Your task to perform on an android device: Show the shopping cart on target.com. Image 0: 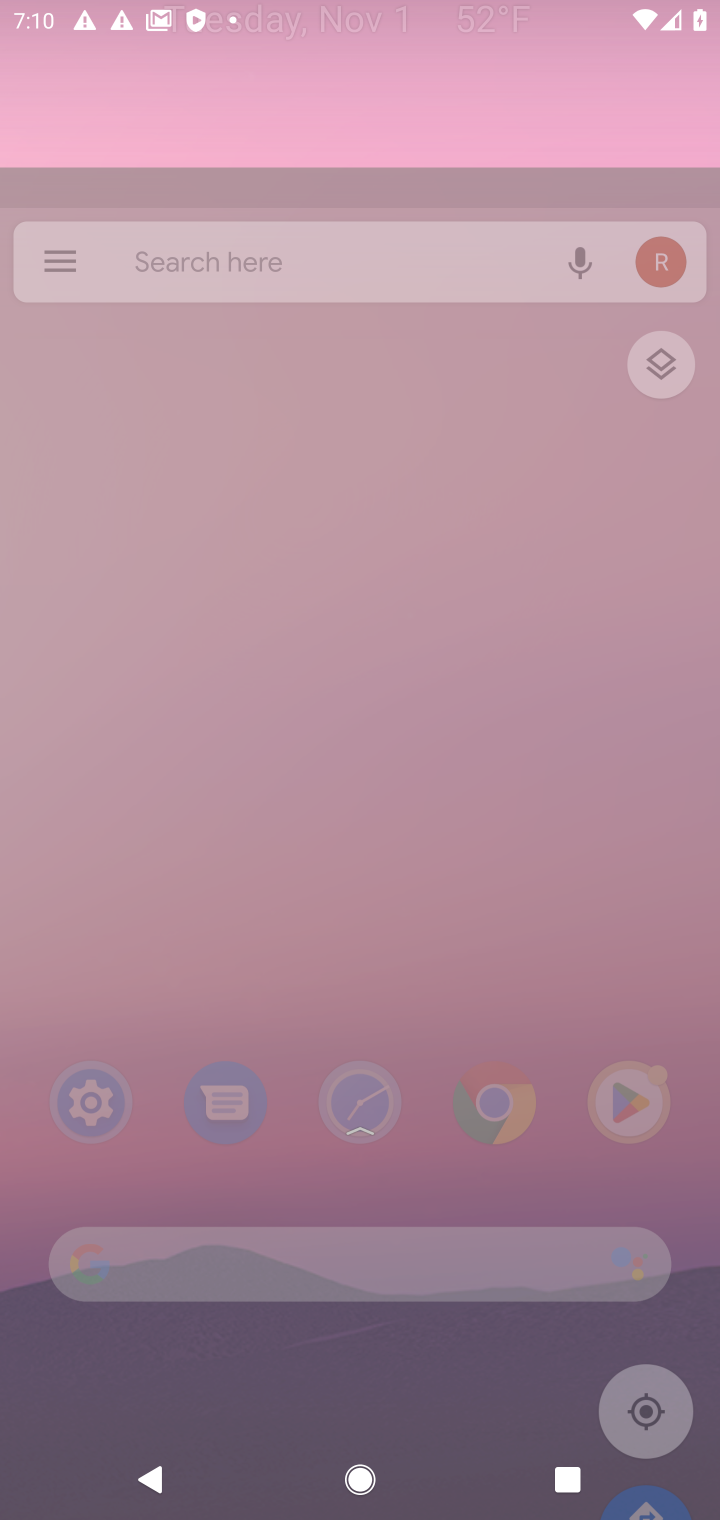
Step 0: click (346, 1349)
Your task to perform on an android device: Show the shopping cart on target.com. Image 1: 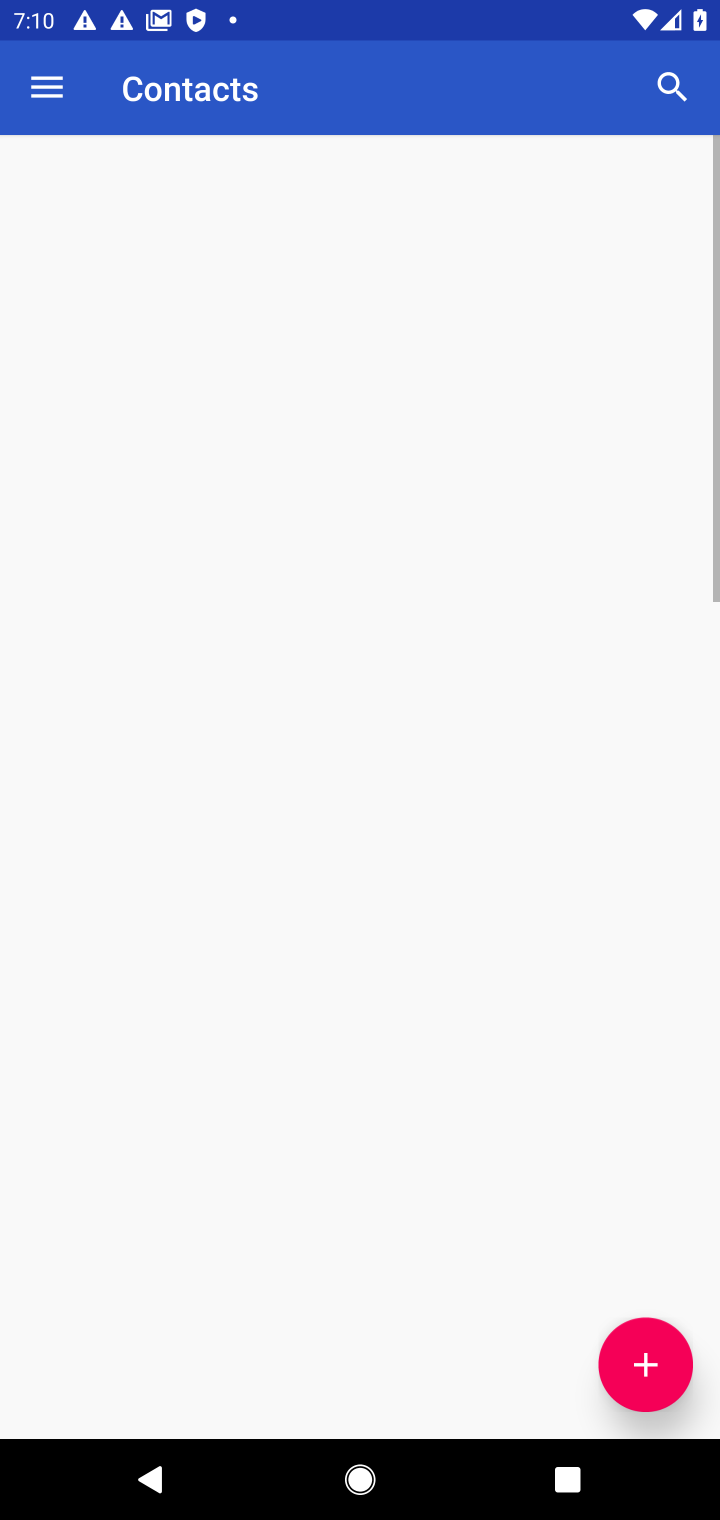
Step 1: click (346, 1349)
Your task to perform on an android device: Show the shopping cart on target.com. Image 2: 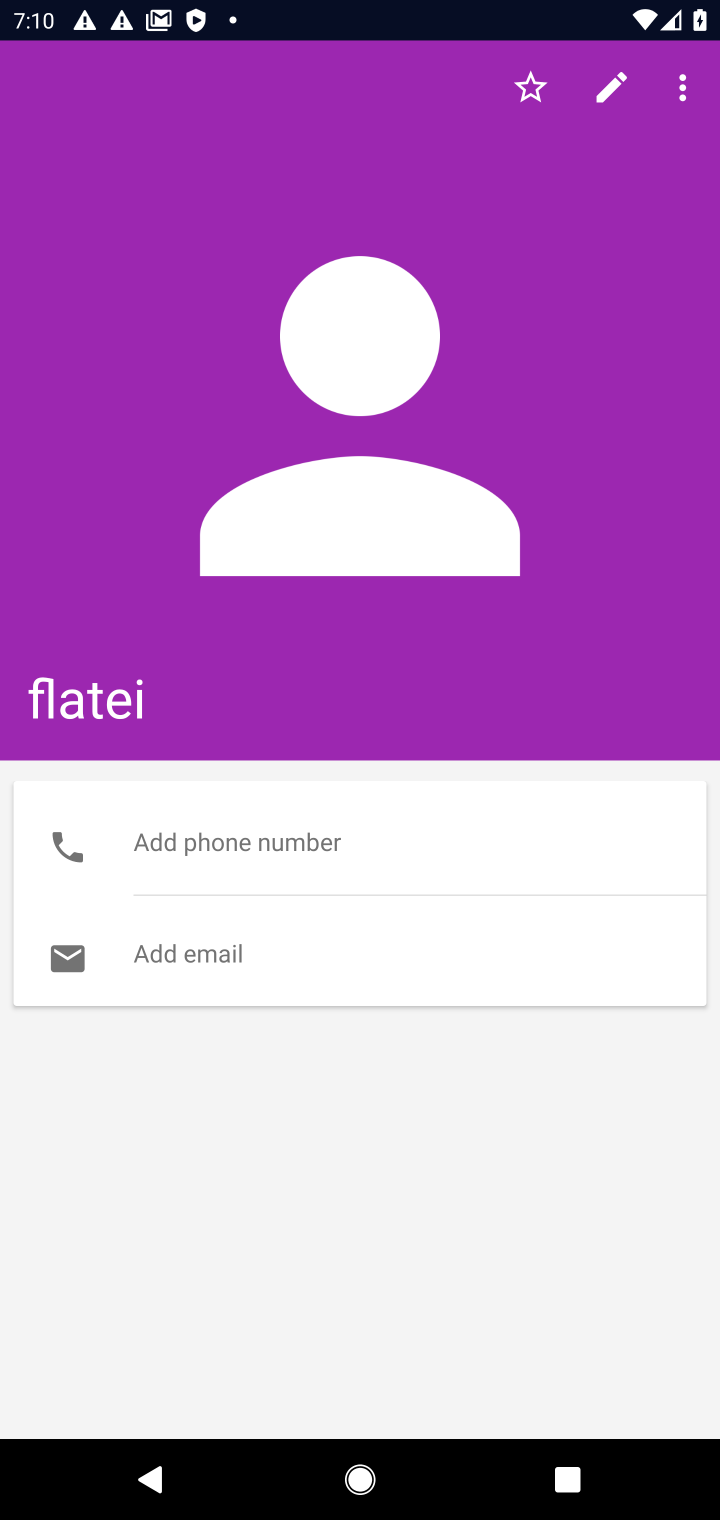
Step 2: press home button
Your task to perform on an android device: Show the shopping cart on target.com. Image 3: 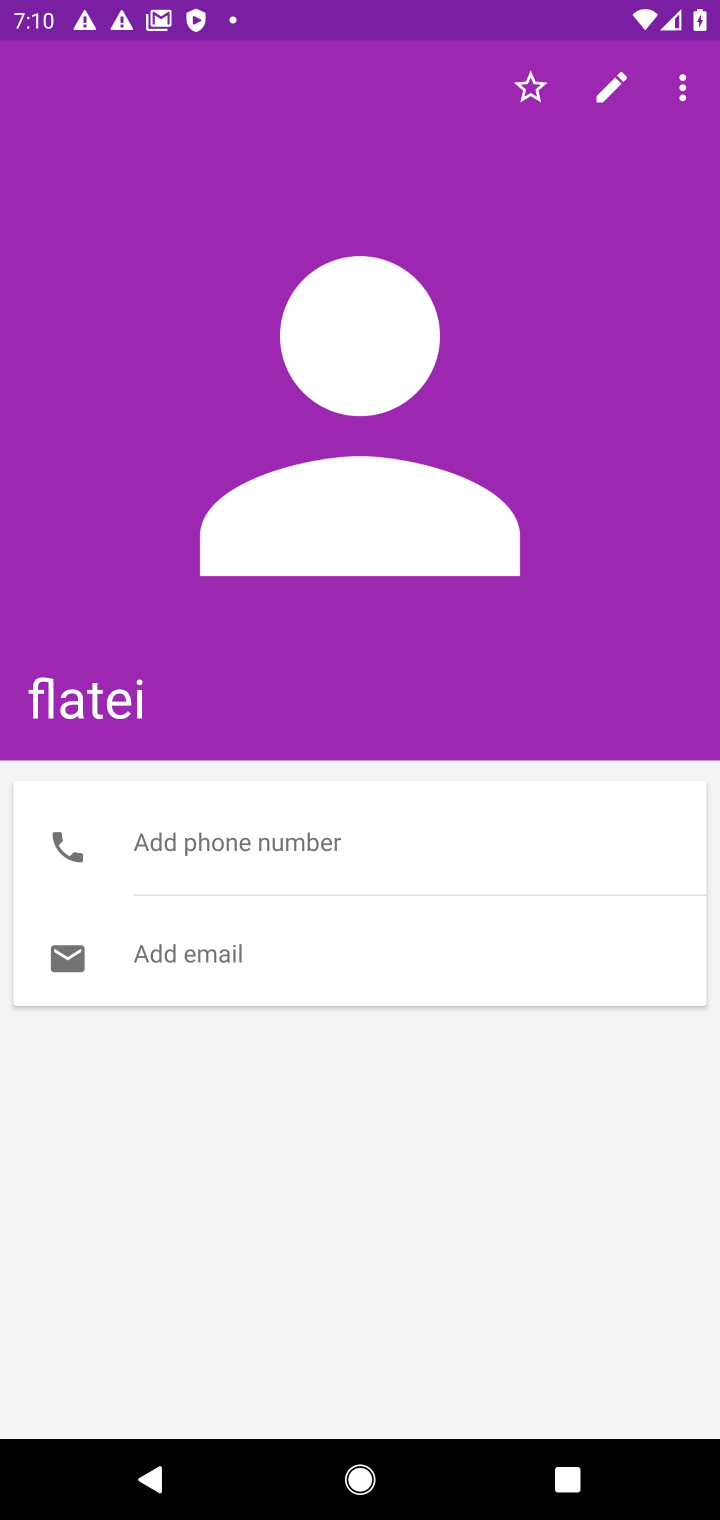
Step 3: press home button
Your task to perform on an android device: Show the shopping cart on target.com. Image 4: 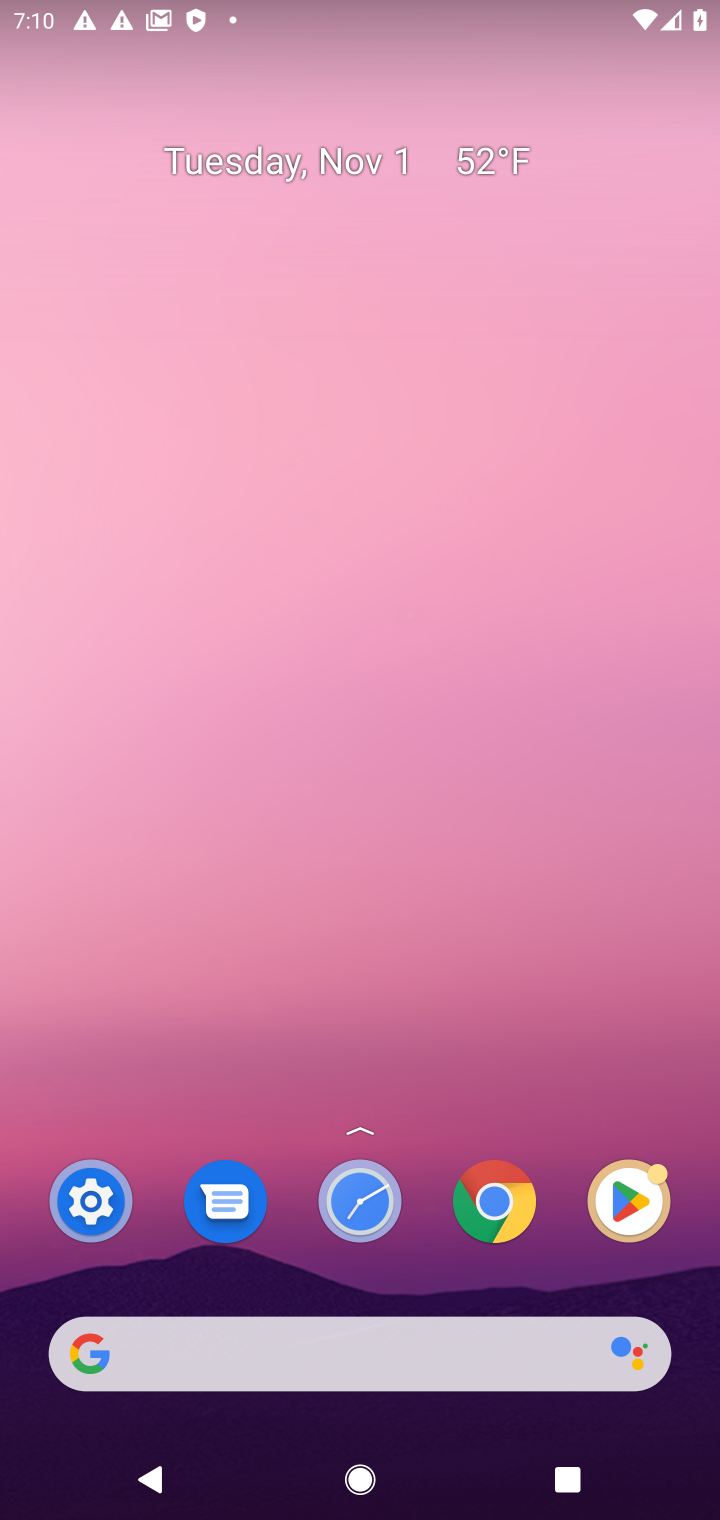
Step 4: press home button
Your task to perform on an android device: Show the shopping cart on target.com. Image 5: 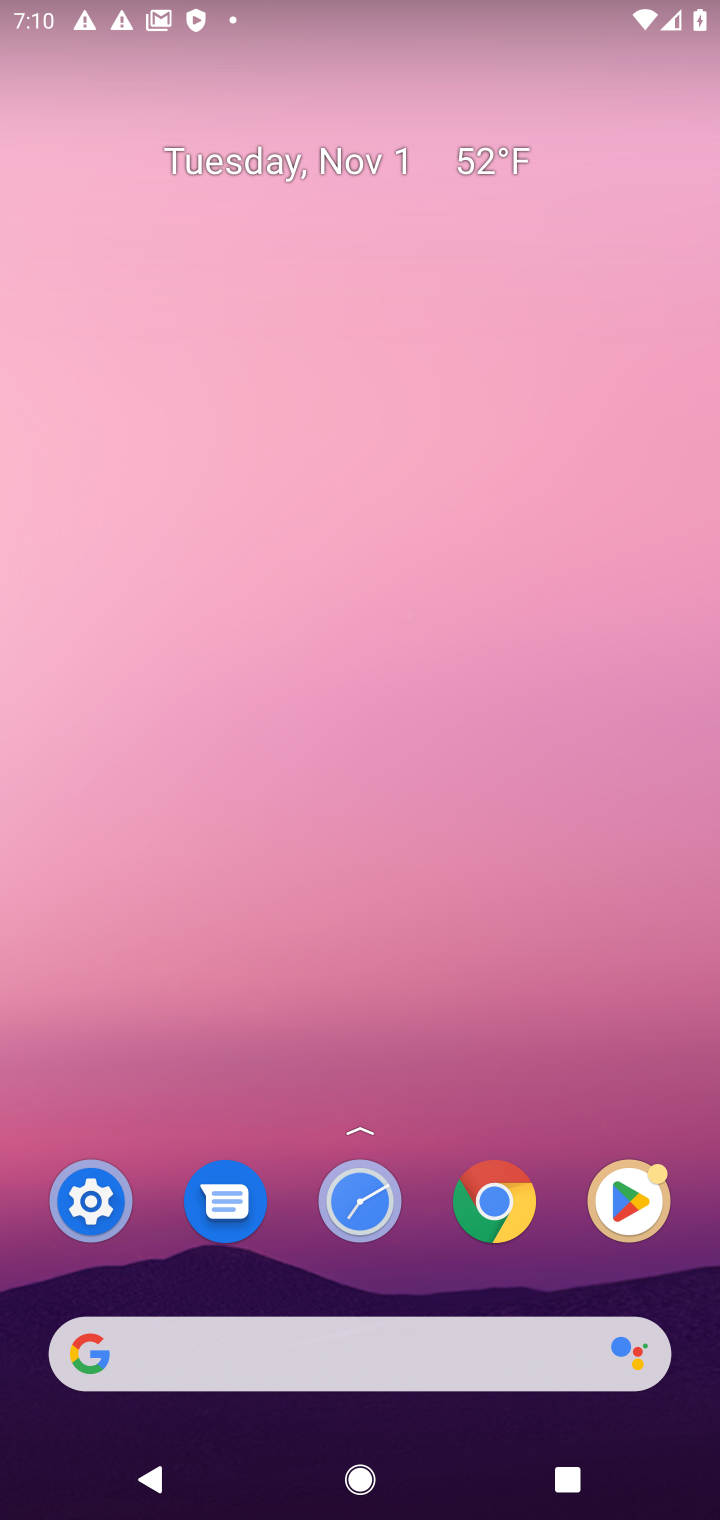
Step 5: click (309, 1342)
Your task to perform on an android device: Show the shopping cart on target.com. Image 6: 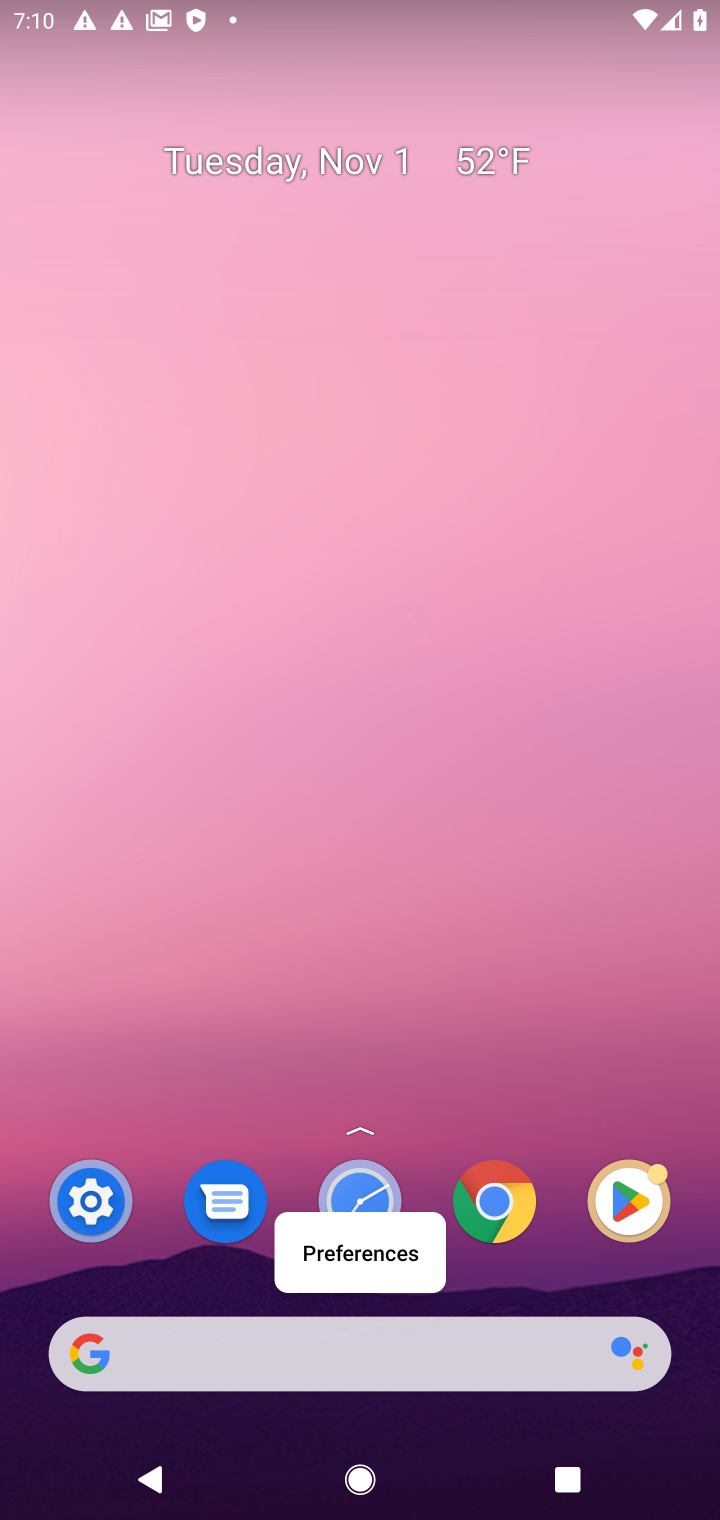
Step 6: click (309, 1354)
Your task to perform on an android device: Show the shopping cart on target.com. Image 7: 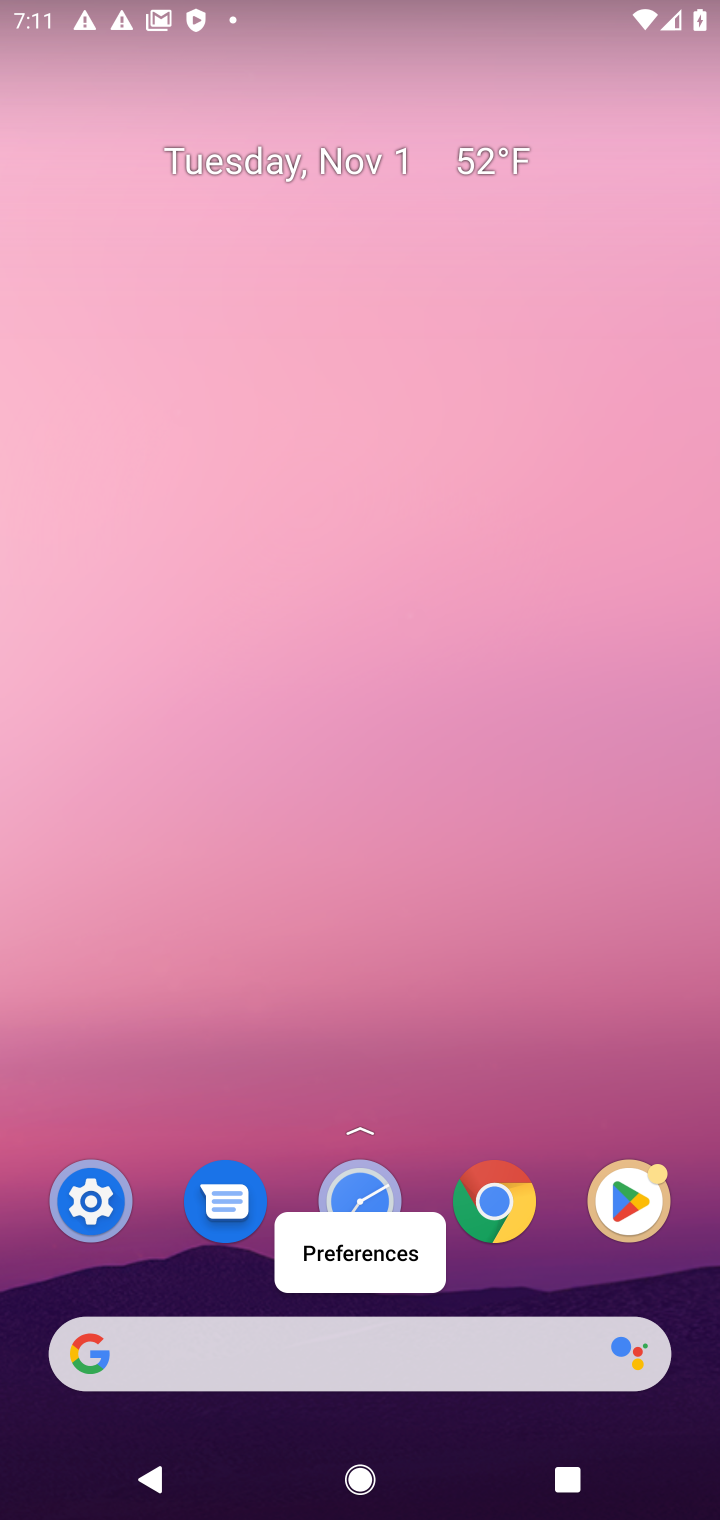
Step 7: click (419, 1340)
Your task to perform on an android device: Show the shopping cart on target.com. Image 8: 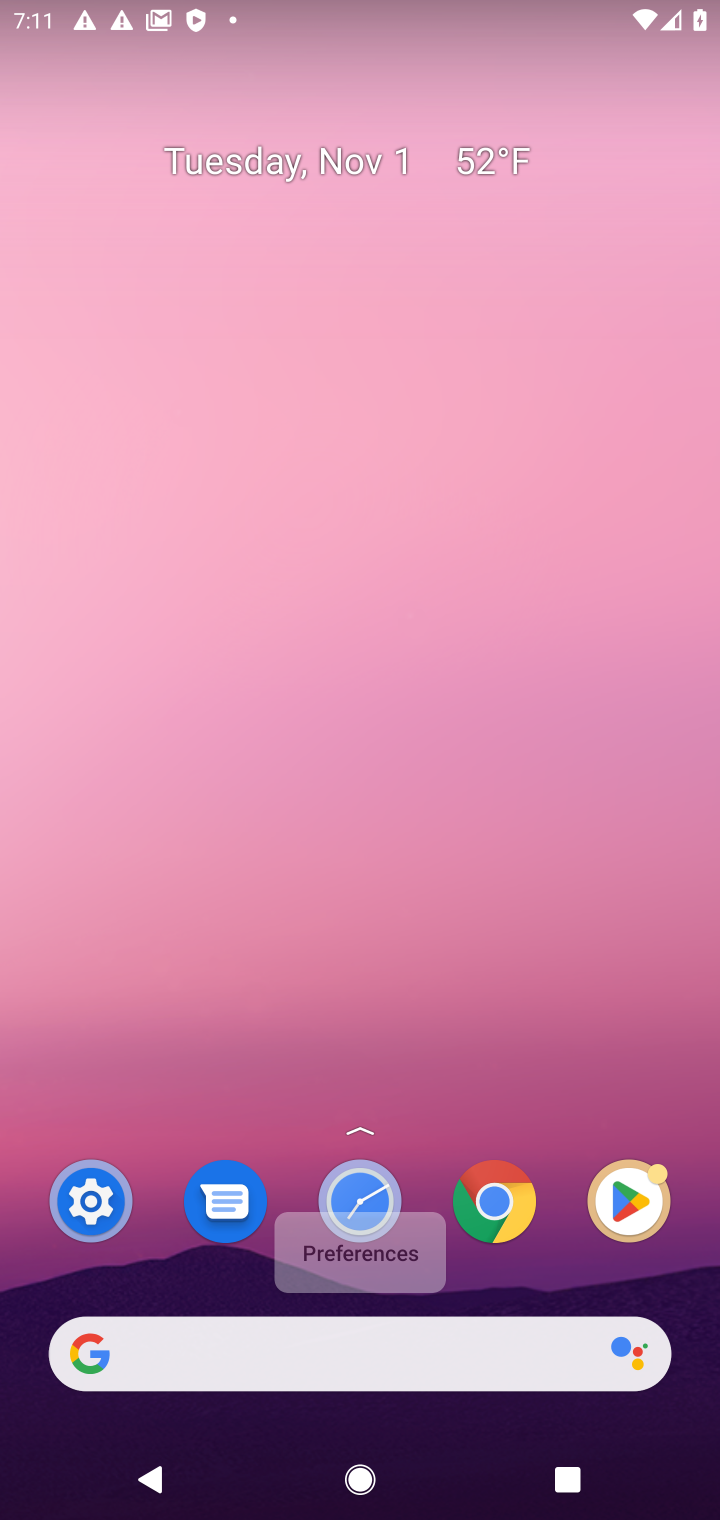
Step 8: click (419, 1340)
Your task to perform on an android device: Show the shopping cart on target.com. Image 9: 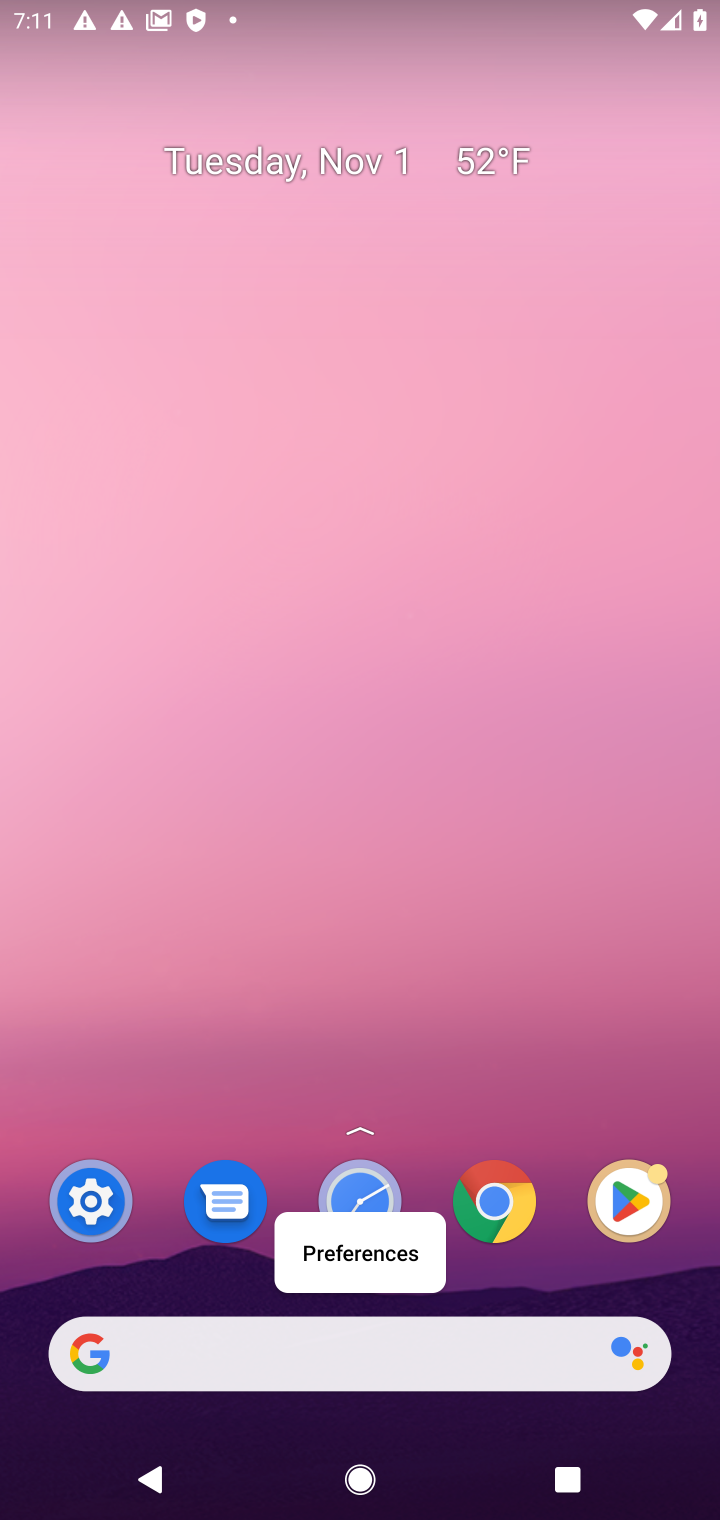
Step 9: click (419, 1340)
Your task to perform on an android device: Show the shopping cart on target.com. Image 10: 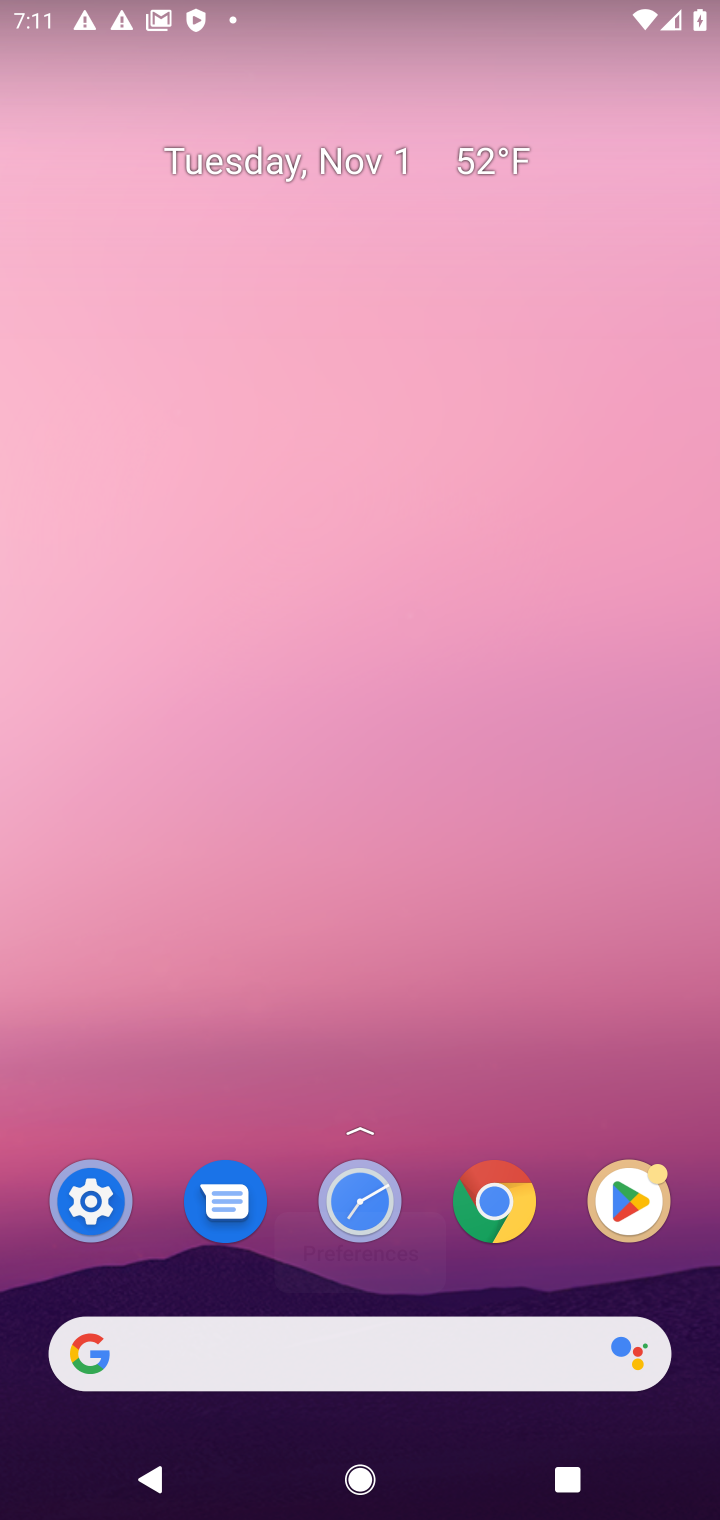
Step 10: click (419, 1340)
Your task to perform on an android device: Show the shopping cart on target.com. Image 11: 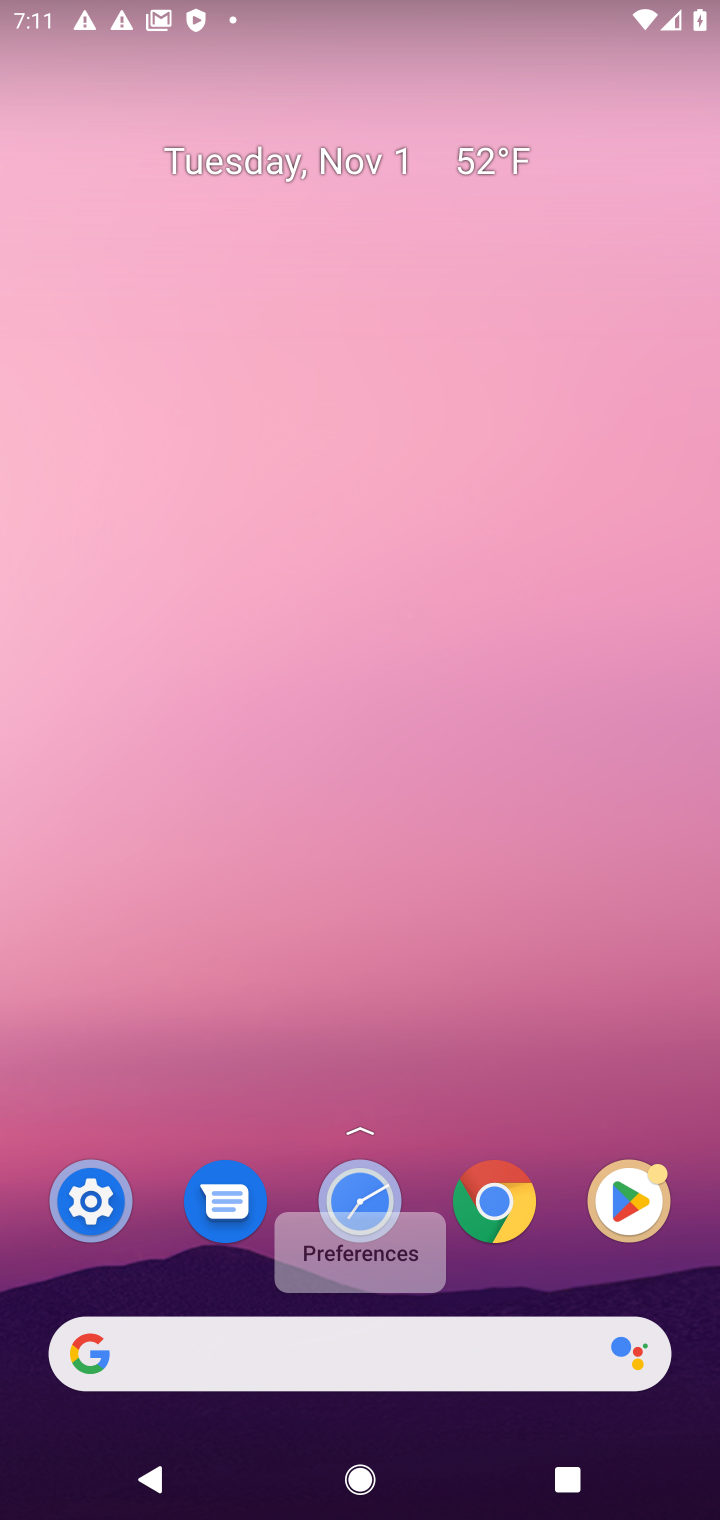
Step 11: click (416, 1340)
Your task to perform on an android device: Show the shopping cart on target.com. Image 12: 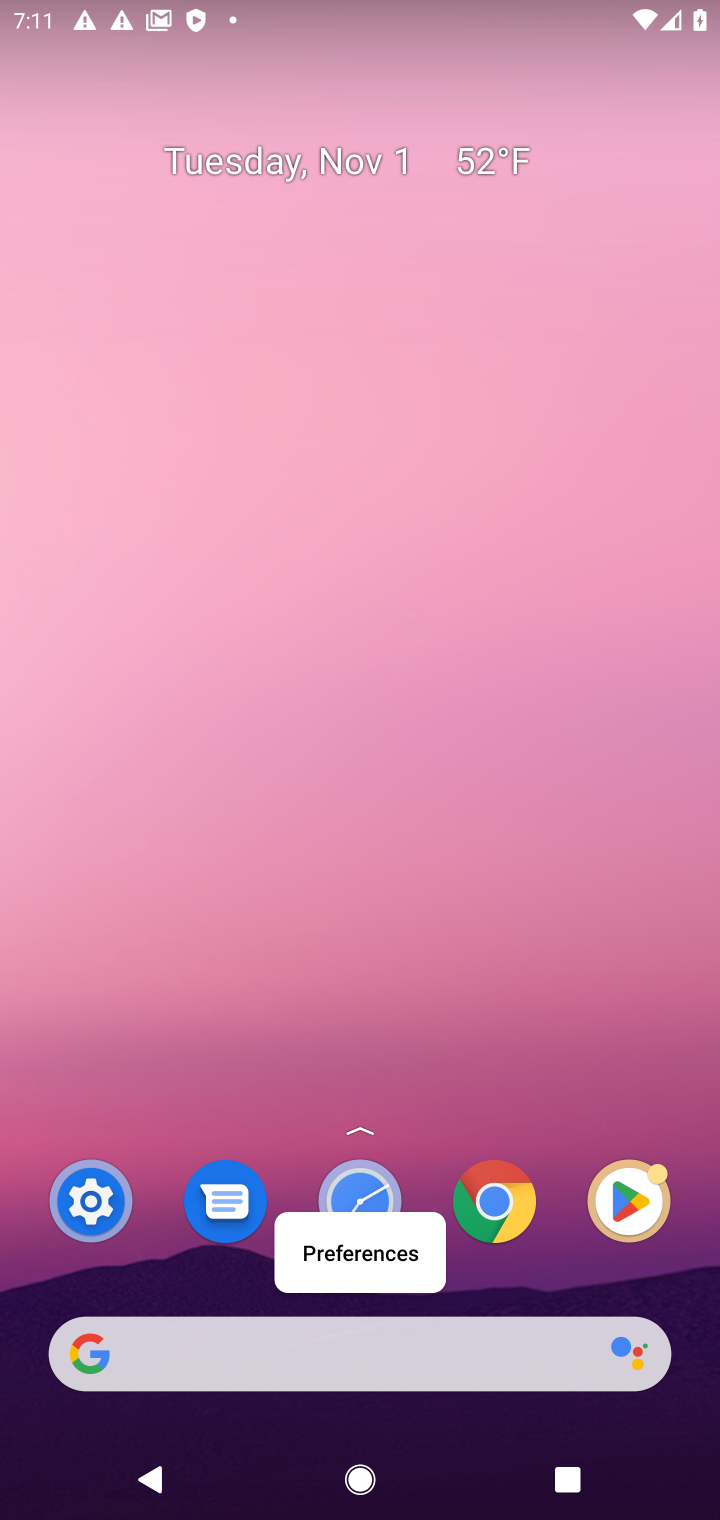
Step 12: click (340, 1332)
Your task to perform on an android device: Show the shopping cart on target.com. Image 13: 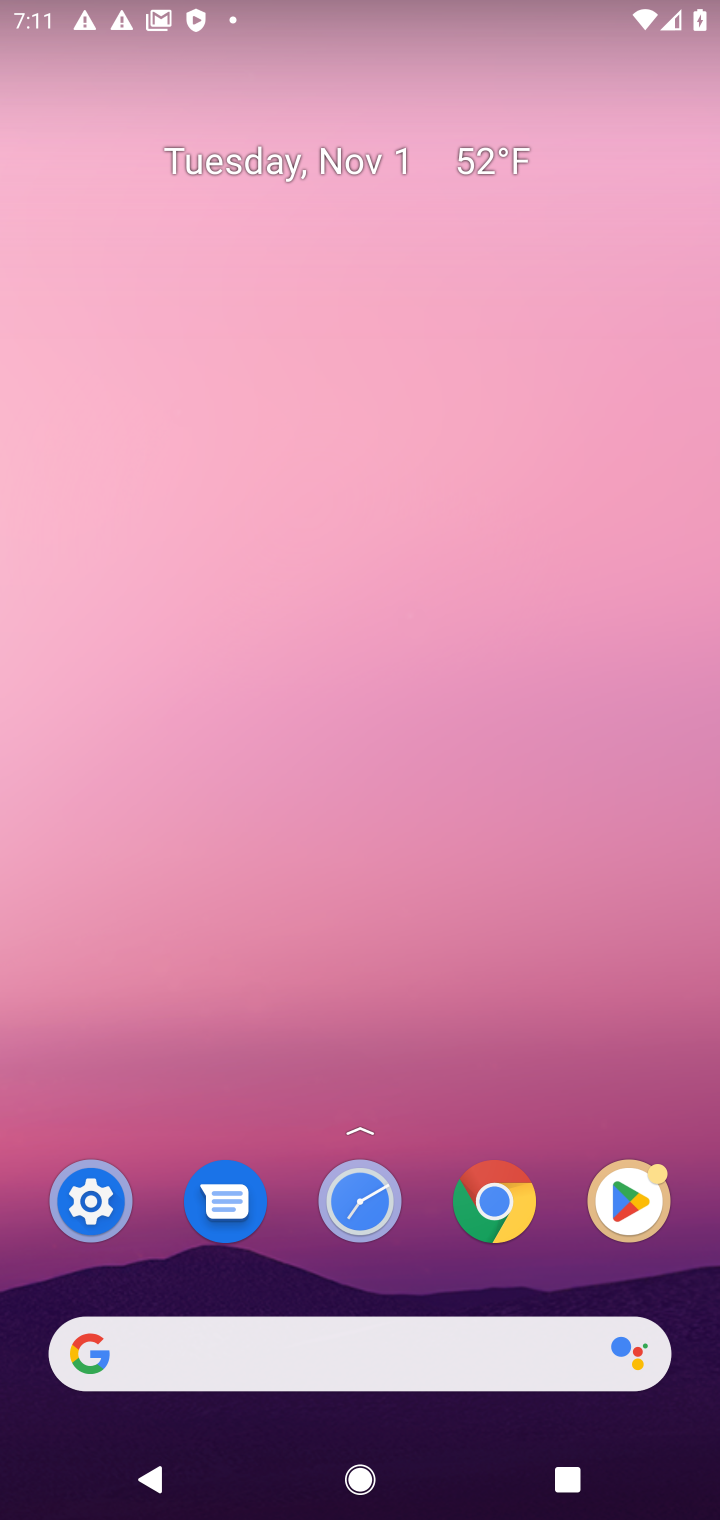
Step 13: click (340, 1332)
Your task to perform on an android device: Show the shopping cart on target.com. Image 14: 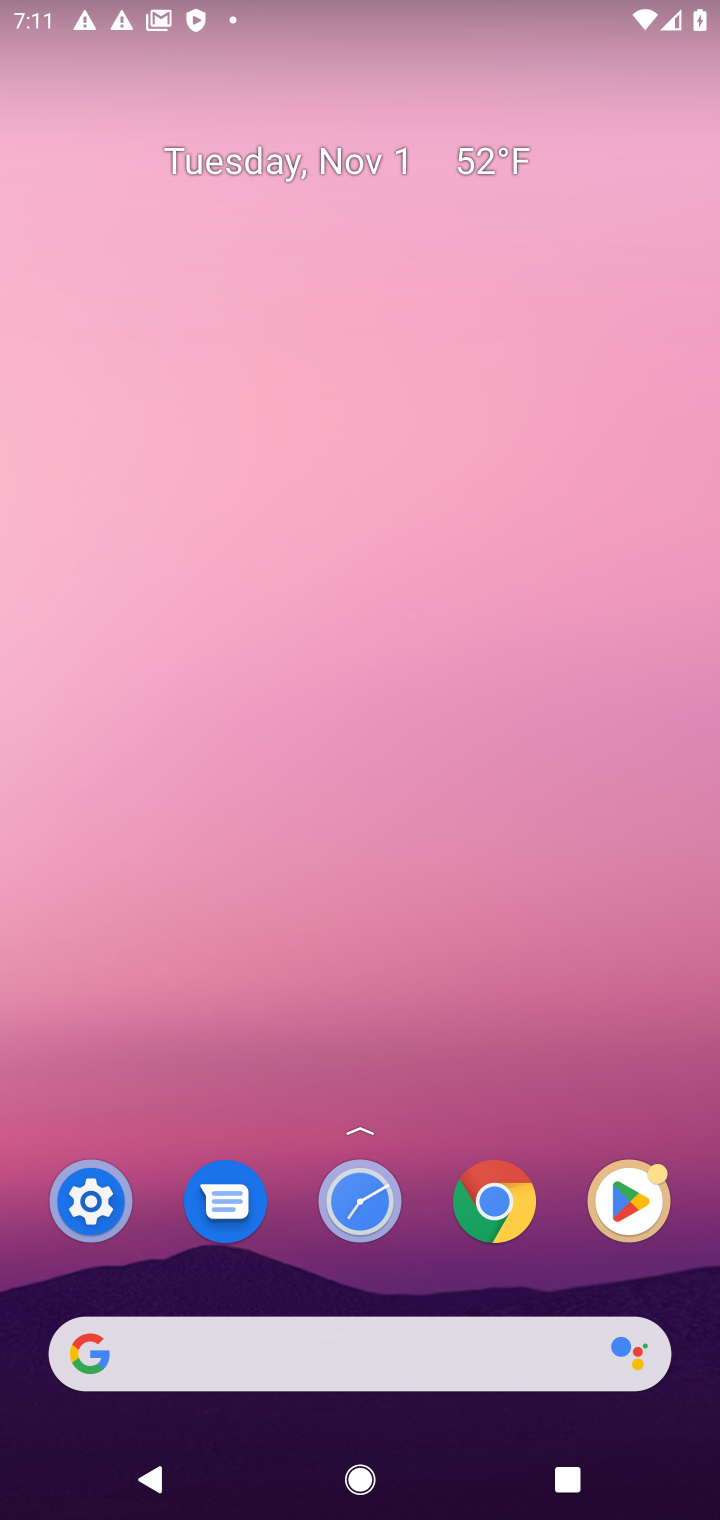
Step 14: click (243, 1347)
Your task to perform on an android device: Show the shopping cart on target.com. Image 15: 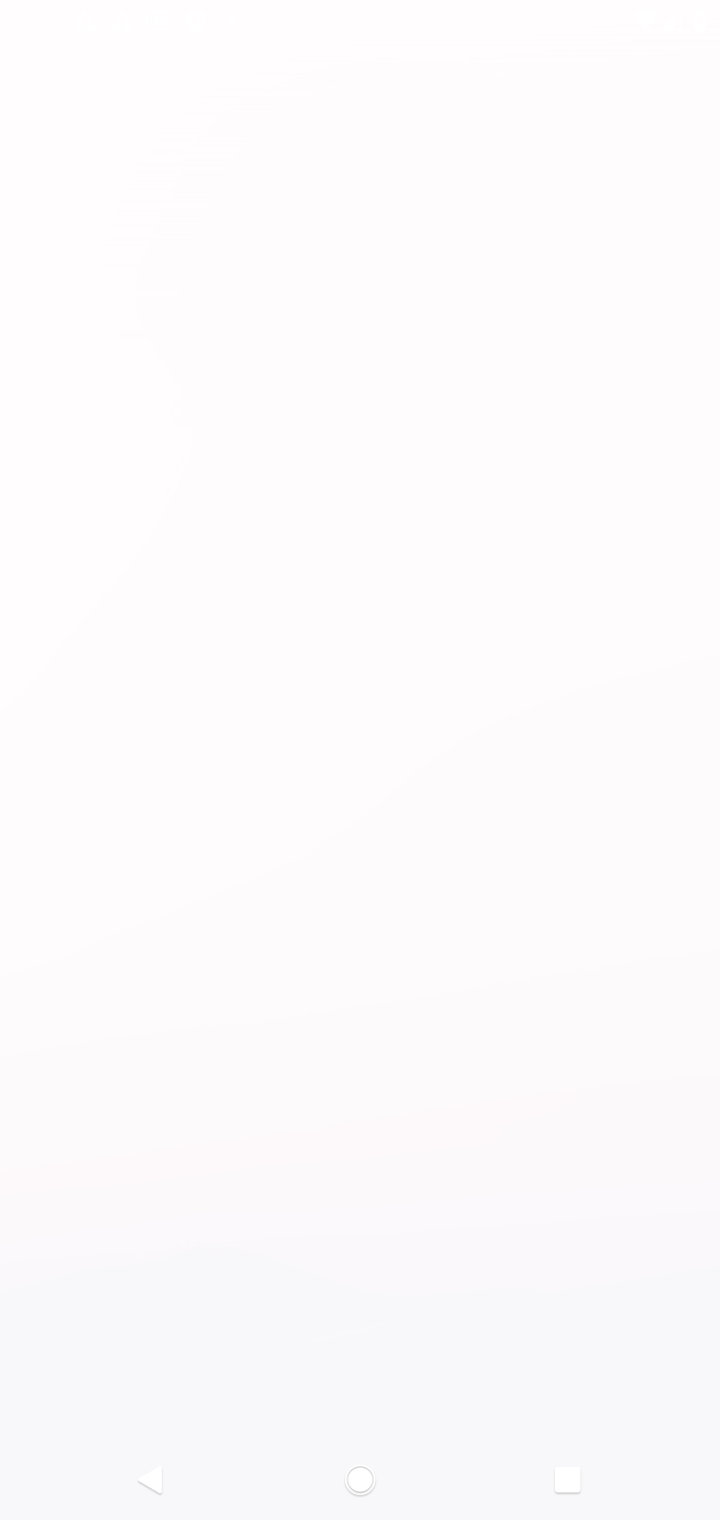
Step 15: click (223, 1350)
Your task to perform on an android device: Show the shopping cart on target.com. Image 16: 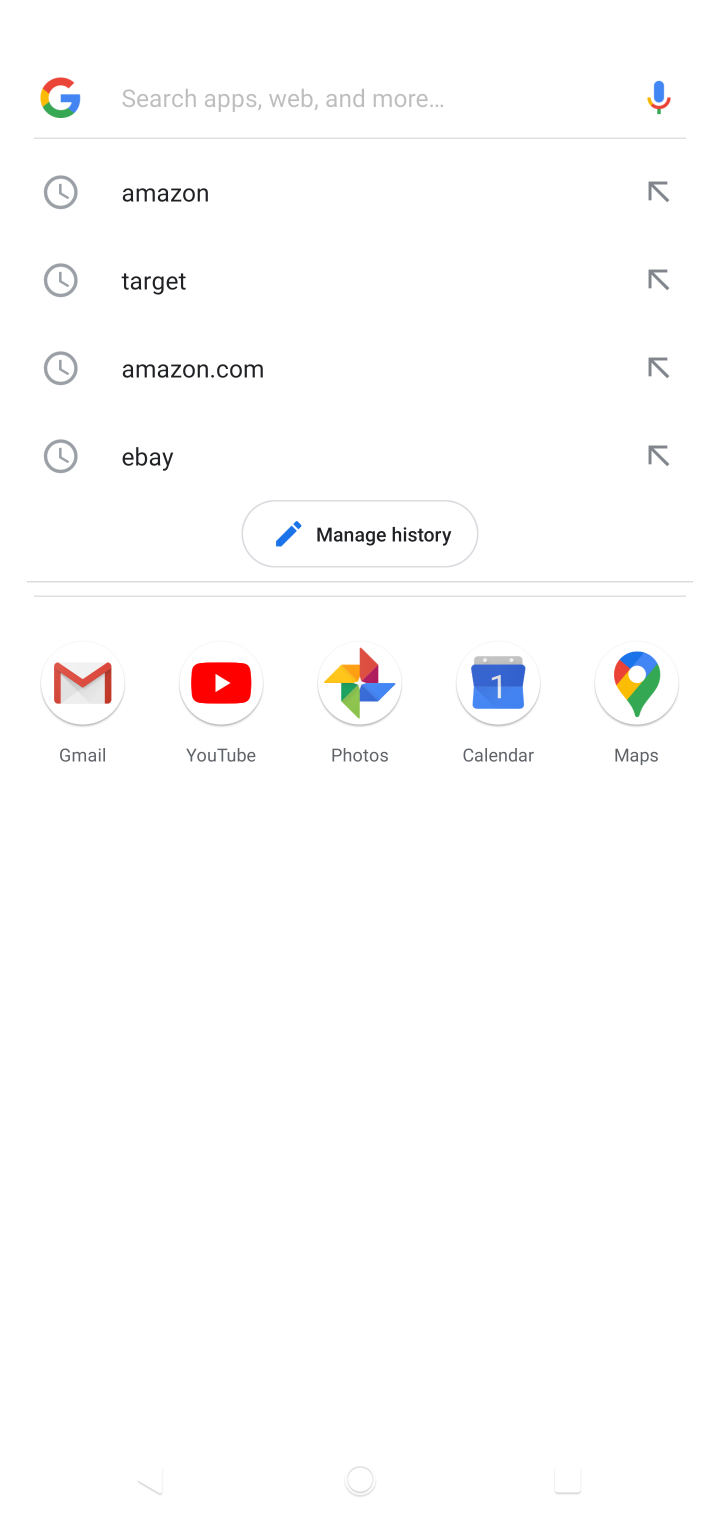
Step 16: click (225, 1356)
Your task to perform on an android device: Show the shopping cart on target.com. Image 17: 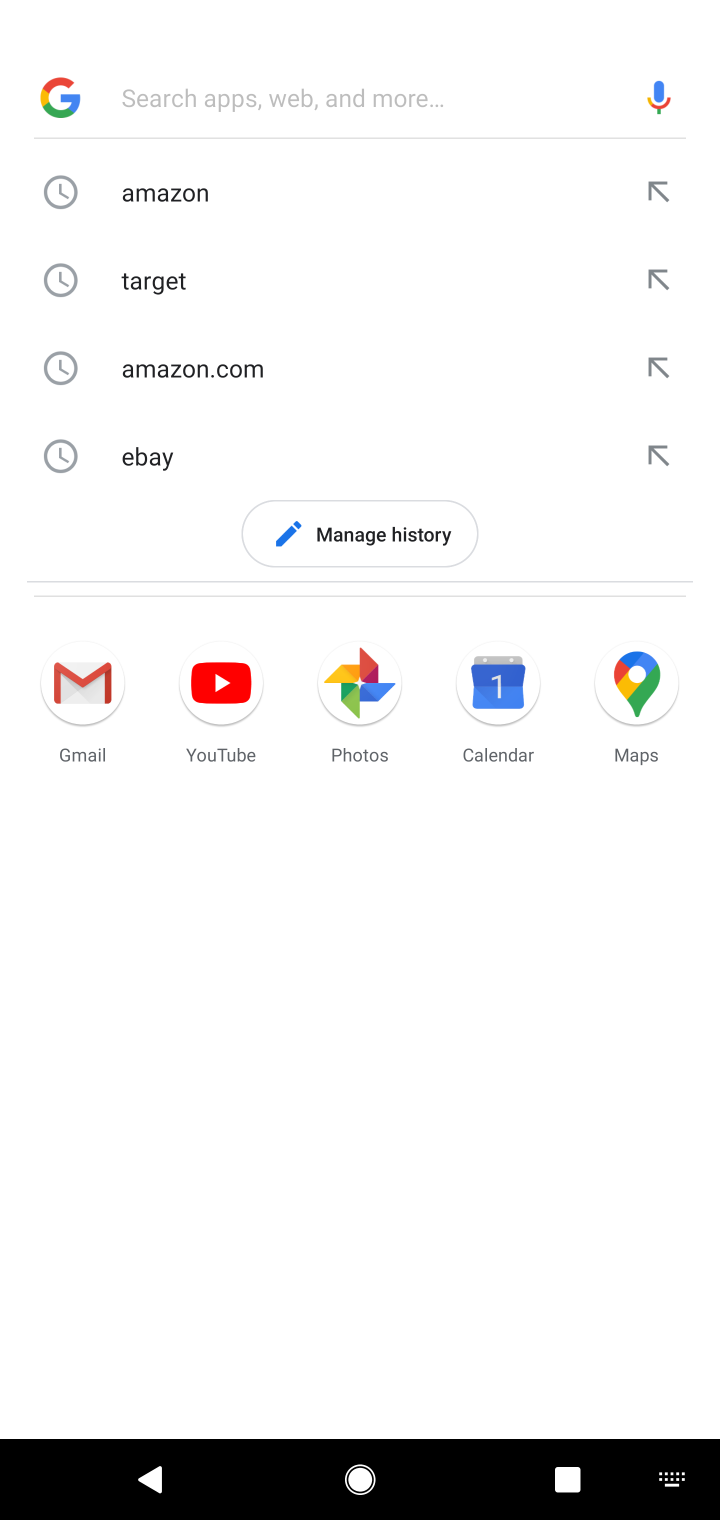
Step 17: type ""
Your task to perform on an android device: Show the shopping cart on target.com. Image 18: 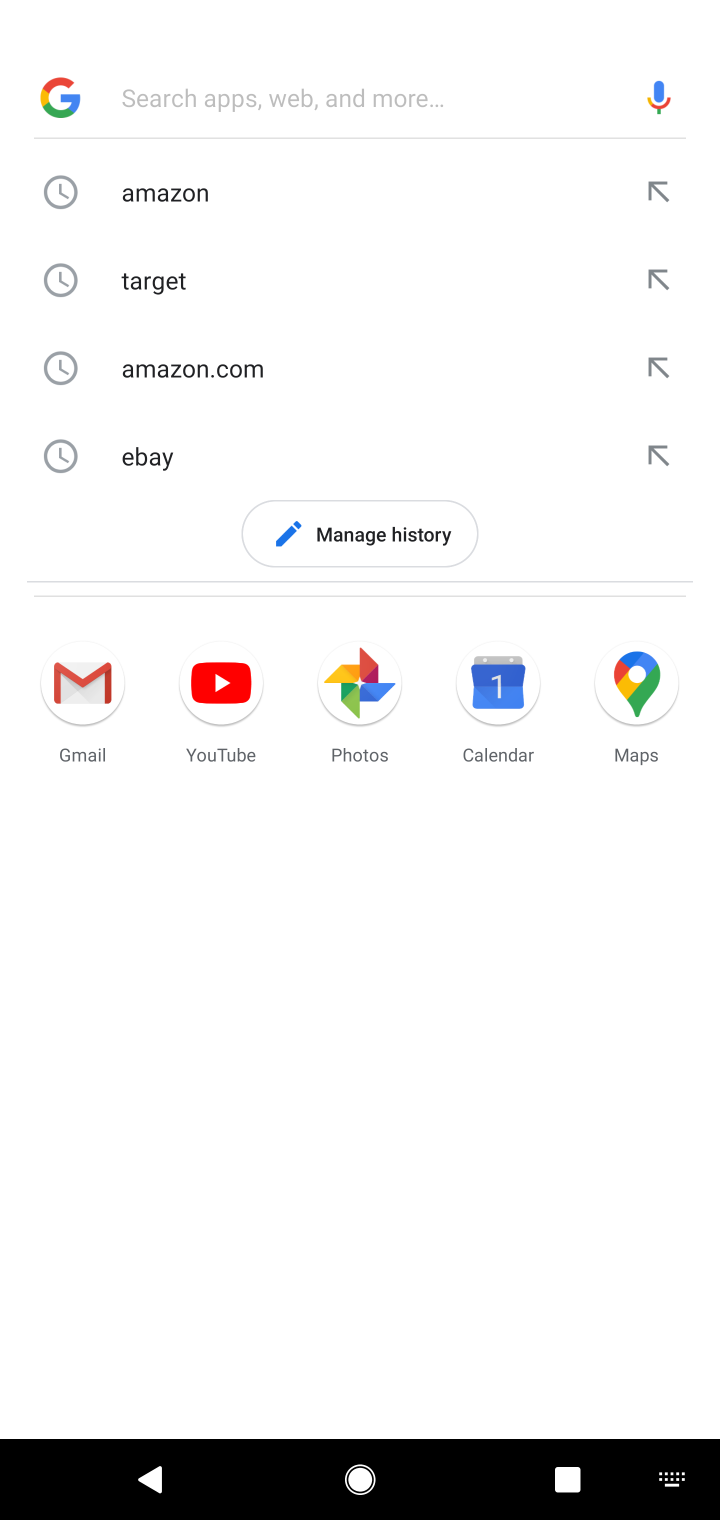
Step 18: type "target.com"
Your task to perform on an android device: Show the shopping cart on target.com. Image 19: 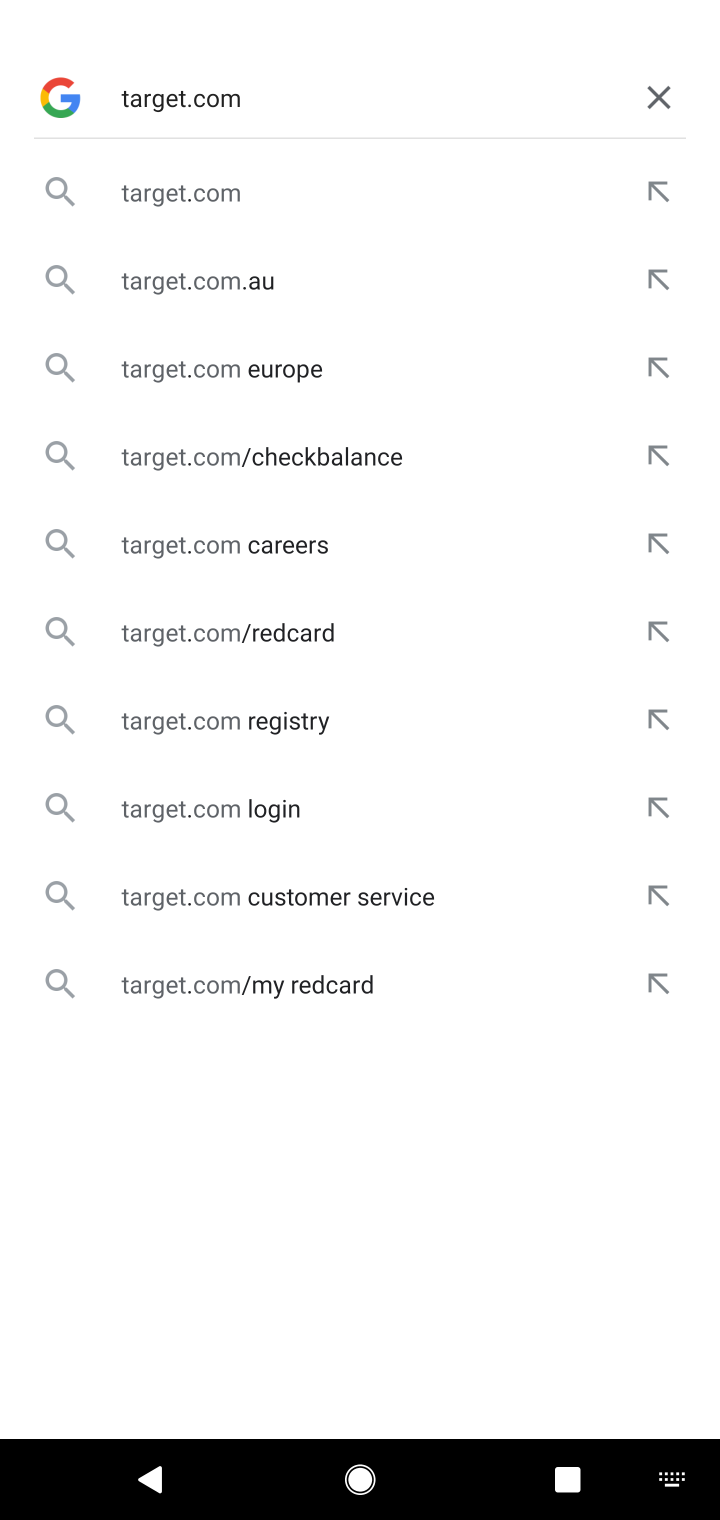
Step 19: type ""
Your task to perform on an android device: Show the shopping cart on target.com. Image 20: 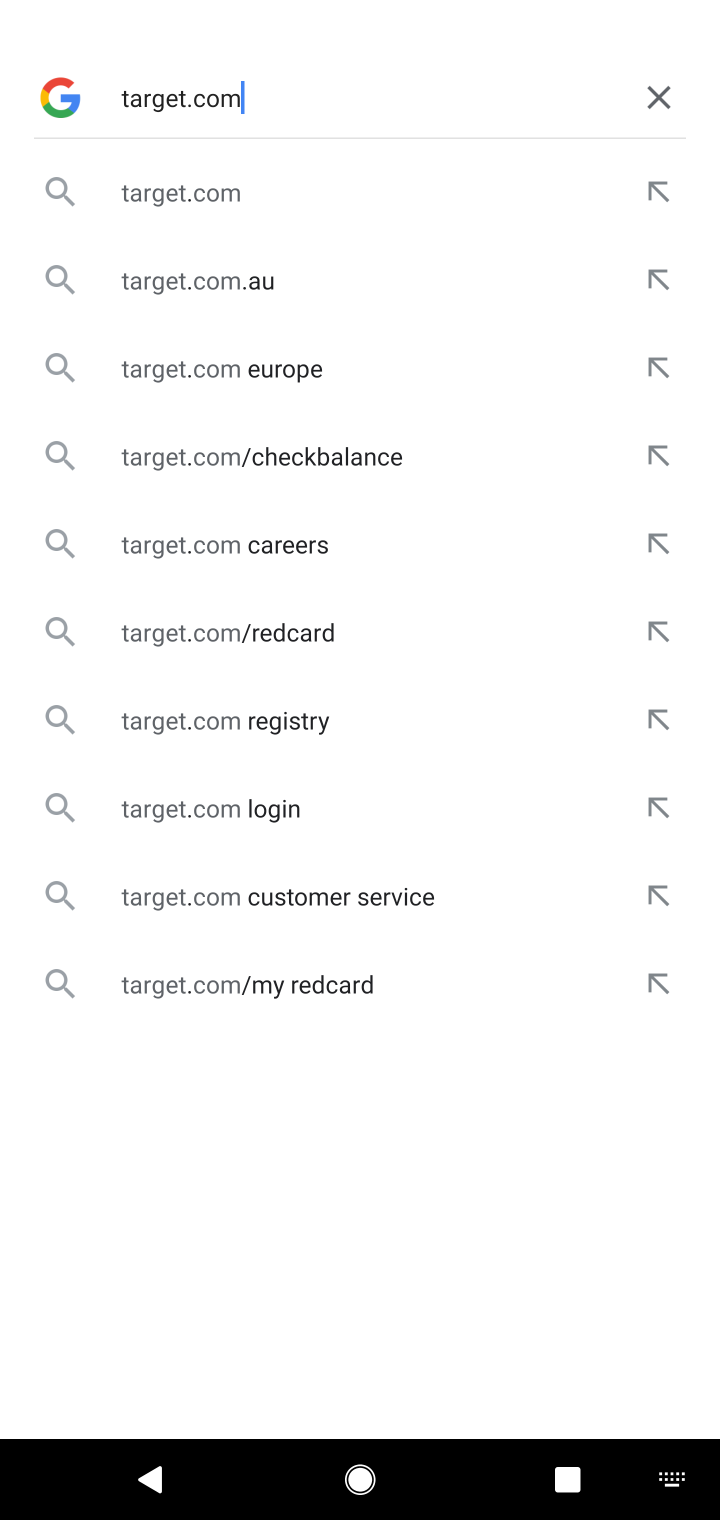
Step 20: press enter
Your task to perform on an android device: Show the shopping cart on target.com. Image 21: 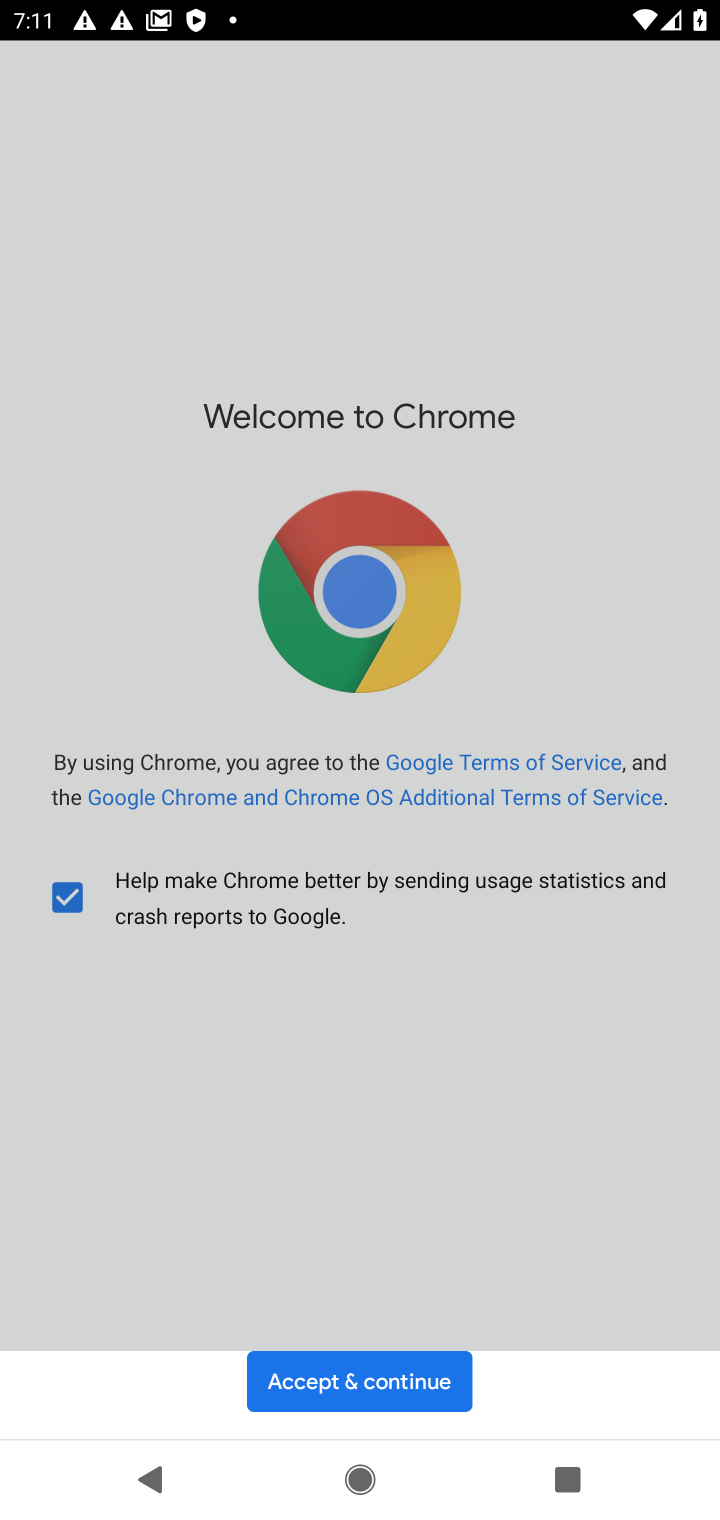
Step 21: click (421, 1382)
Your task to perform on an android device: Show the shopping cart on target.com. Image 22: 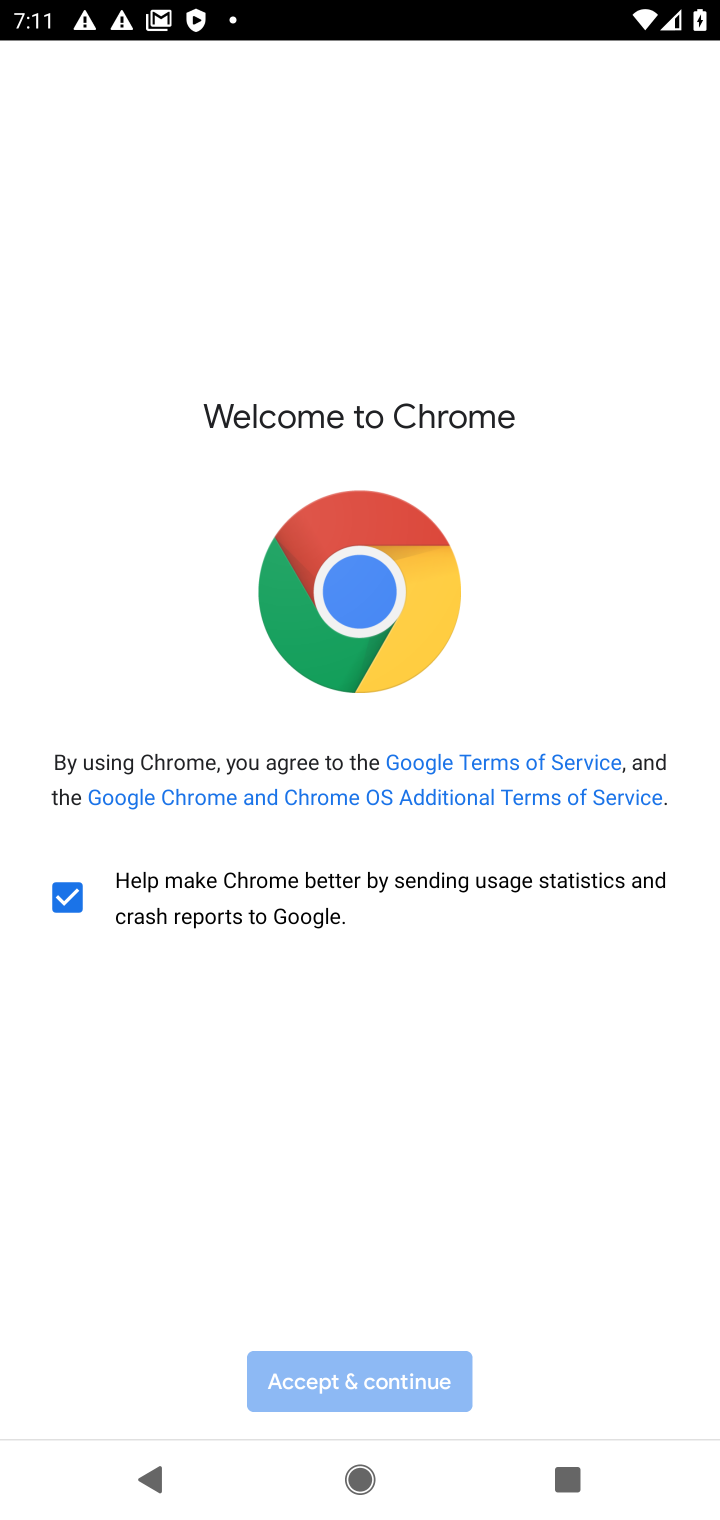
Step 22: click (421, 1382)
Your task to perform on an android device: Show the shopping cart on target.com. Image 23: 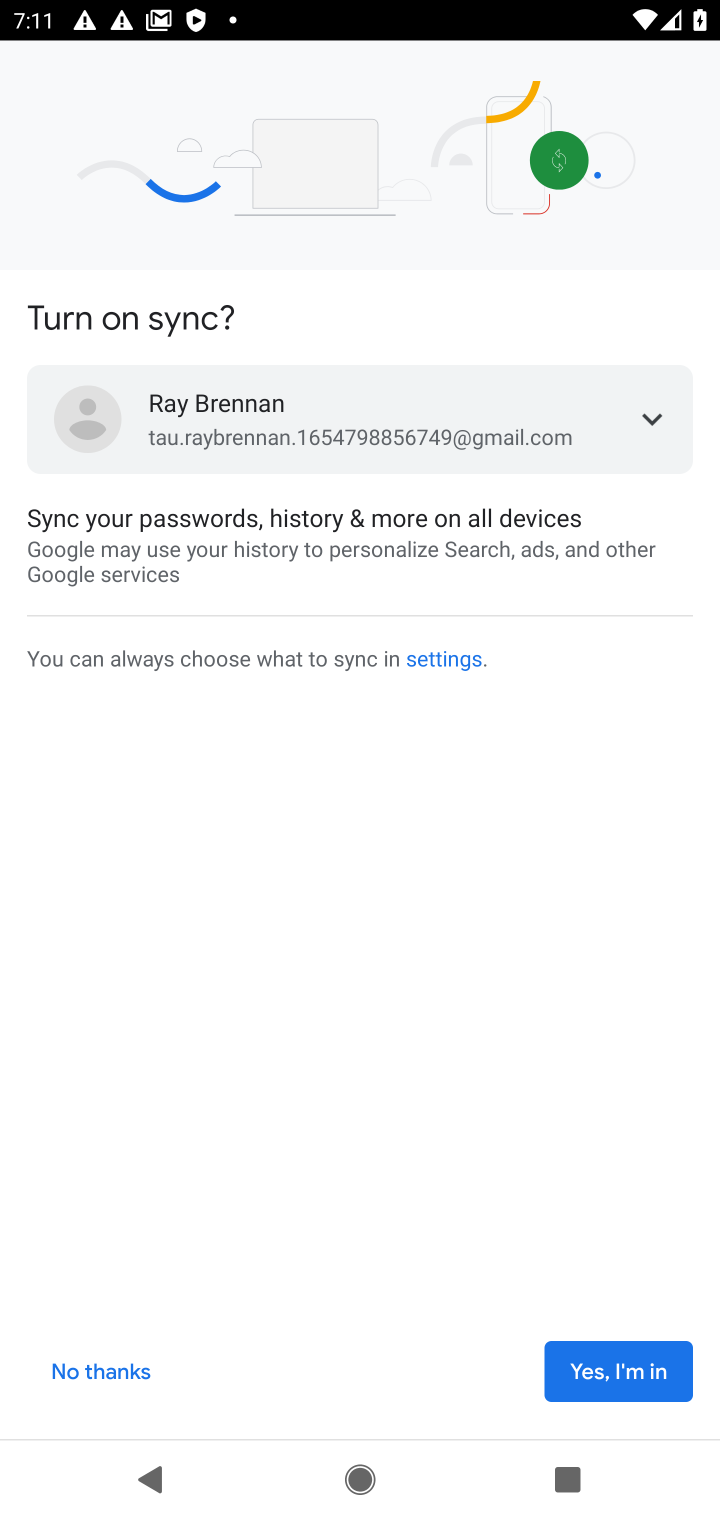
Step 23: click (570, 1356)
Your task to perform on an android device: Show the shopping cart on target.com. Image 24: 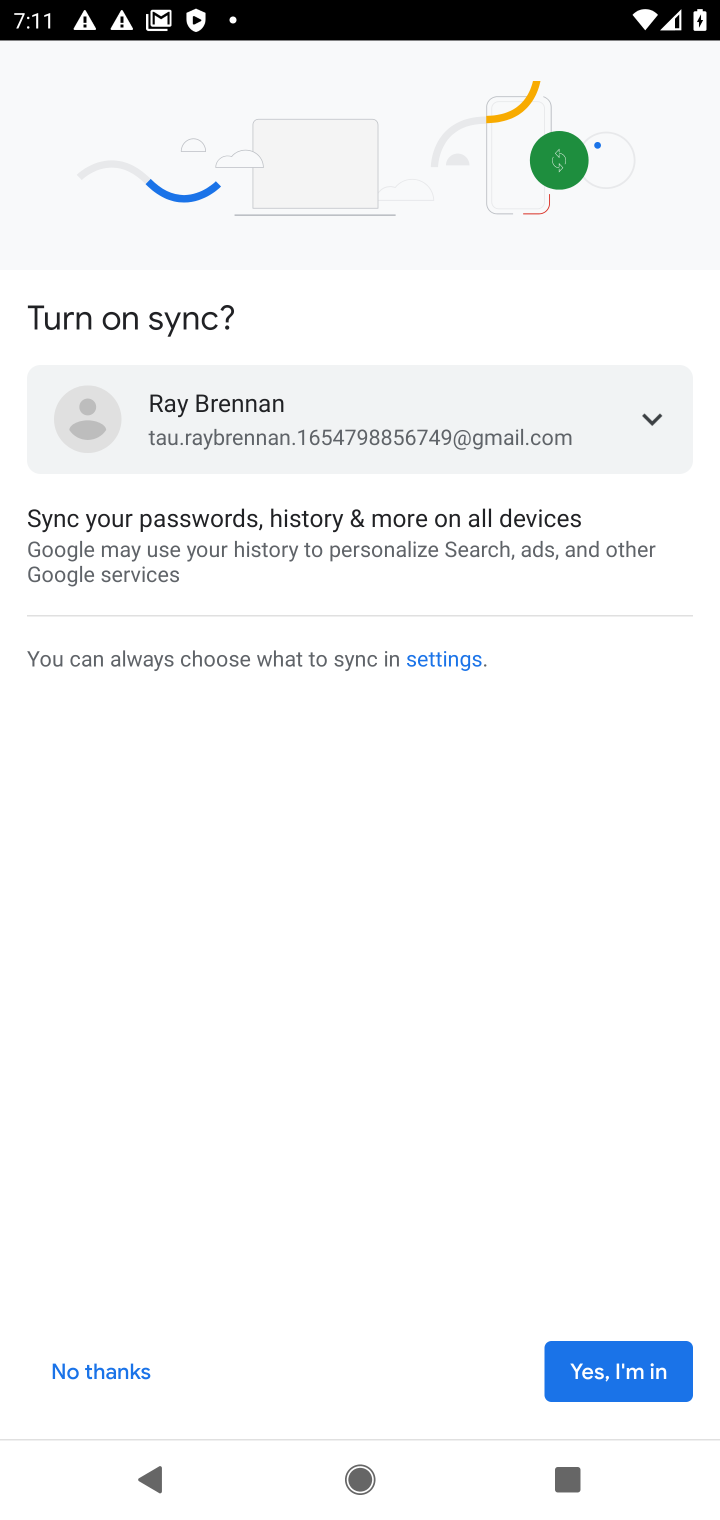
Step 24: click (570, 1356)
Your task to perform on an android device: Show the shopping cart on target.com. Image 25: 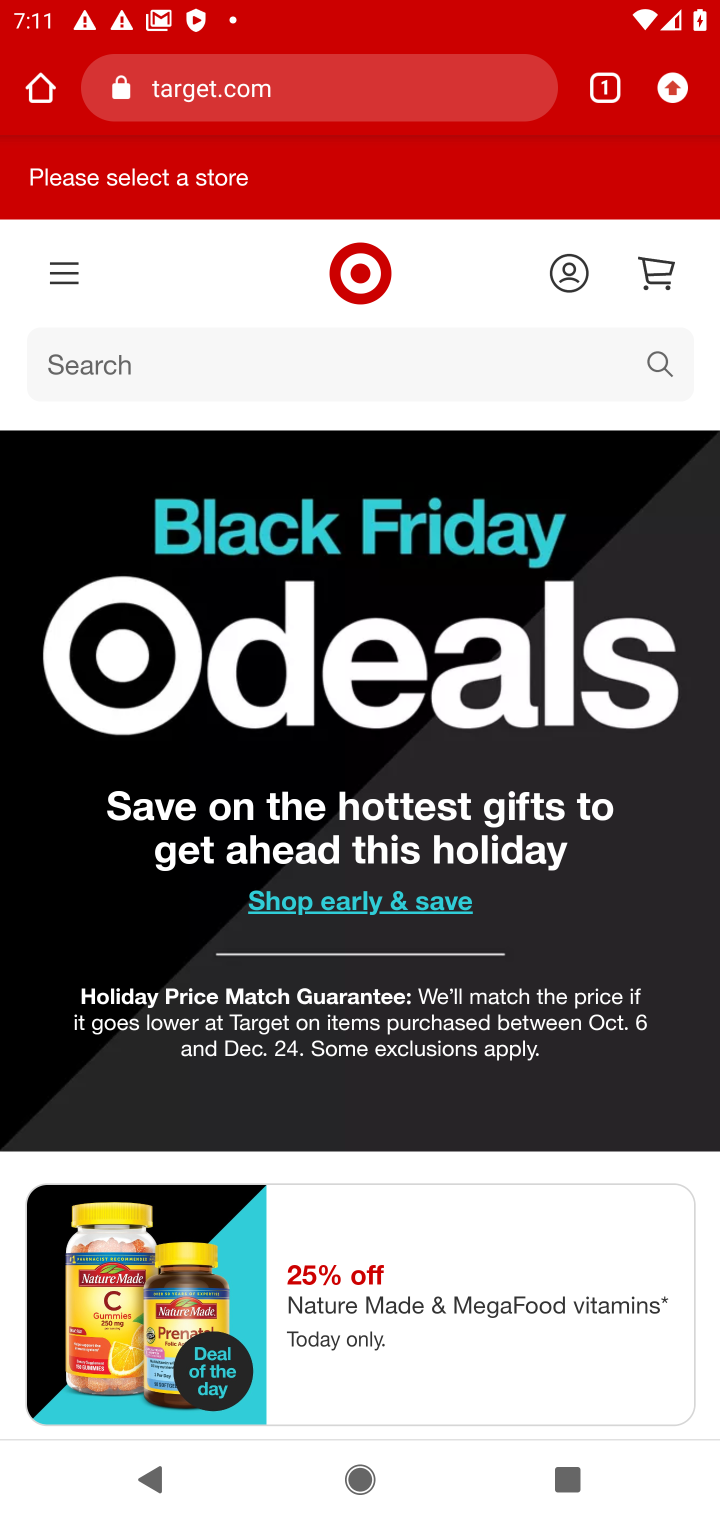
Step 25: click (291, 374)
Your task to perform on an android device: Show the shopping cart on target.com. Image 26: 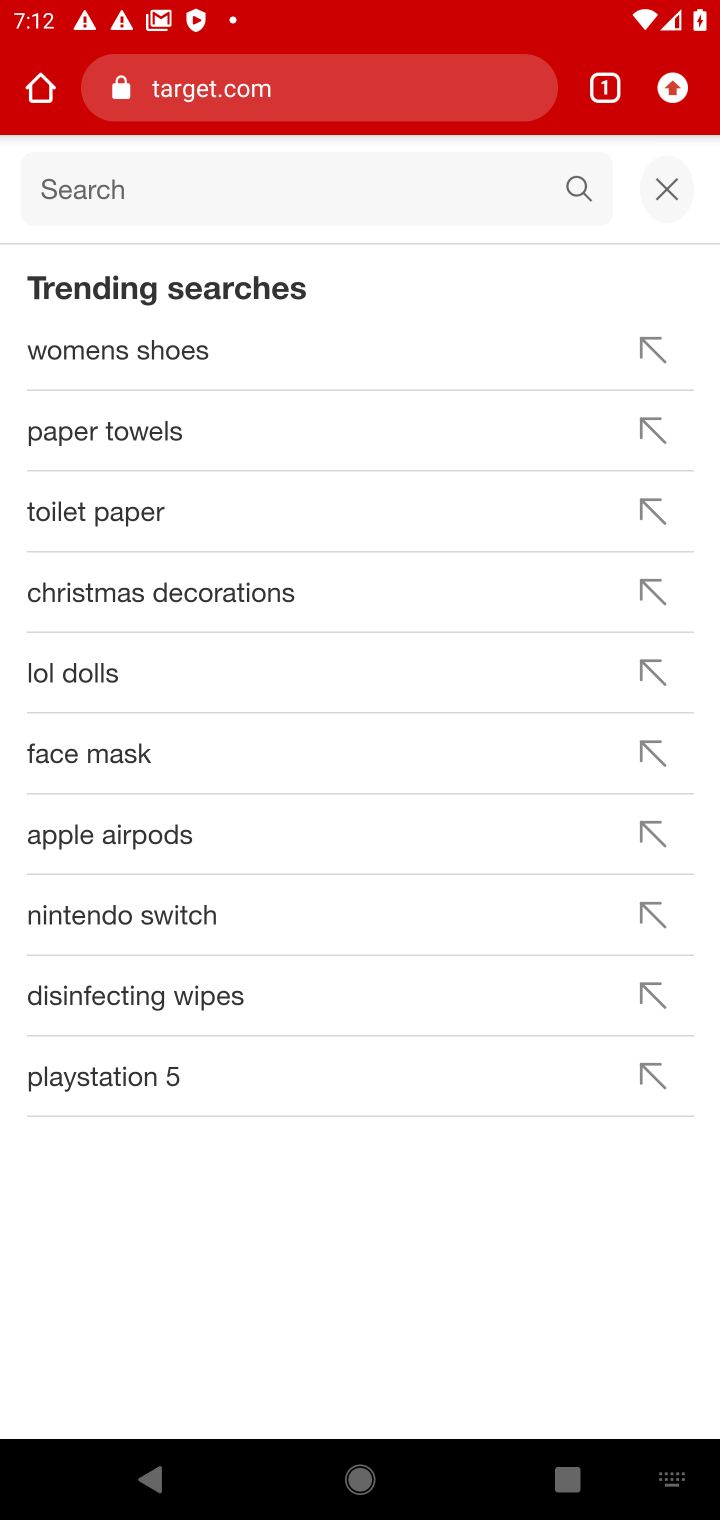
Step 26: click (185, 338)
Your task to perform on an android device: Show the shopping cart on target.com. Image 27: 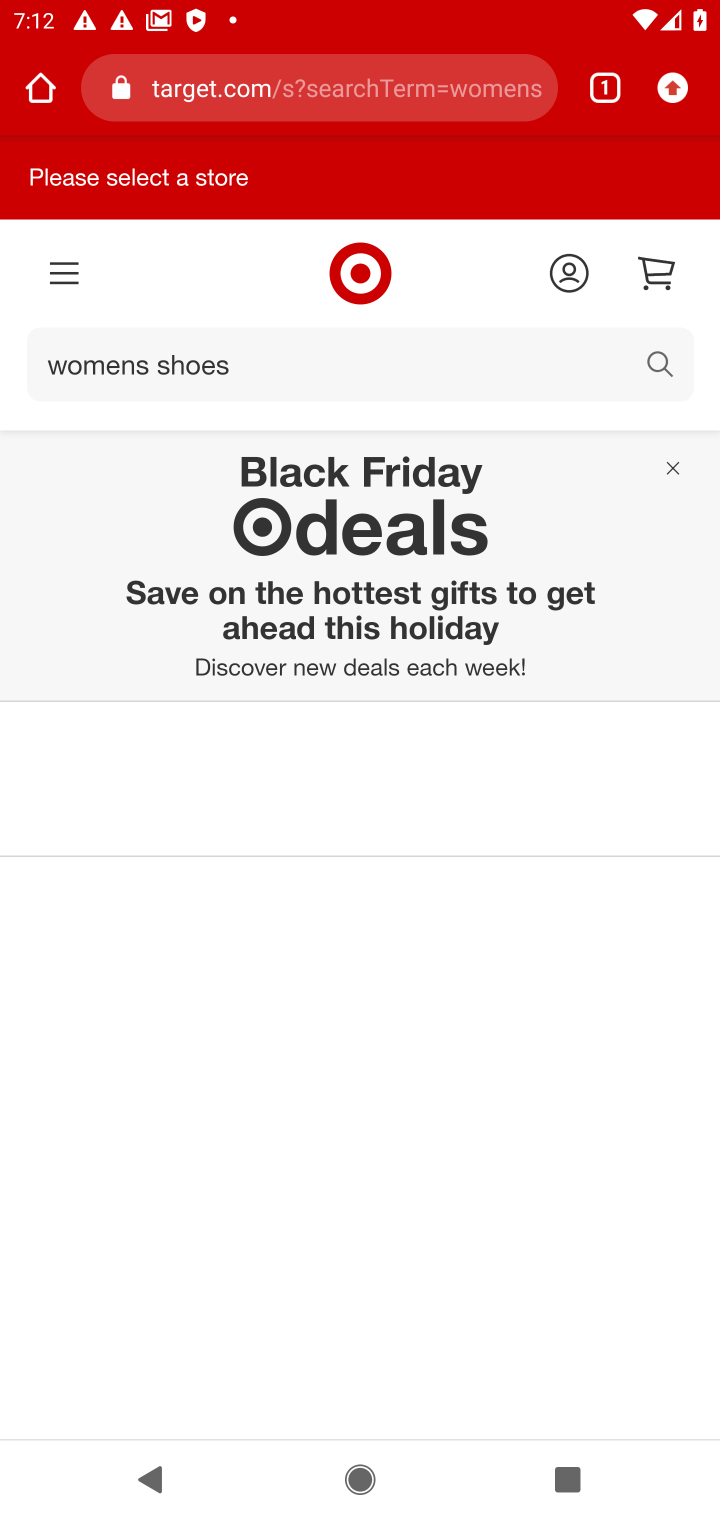
Step 27: click (645, 267)
Your task to perform on an android device: Show the shopping cart on target.com. Image 28: 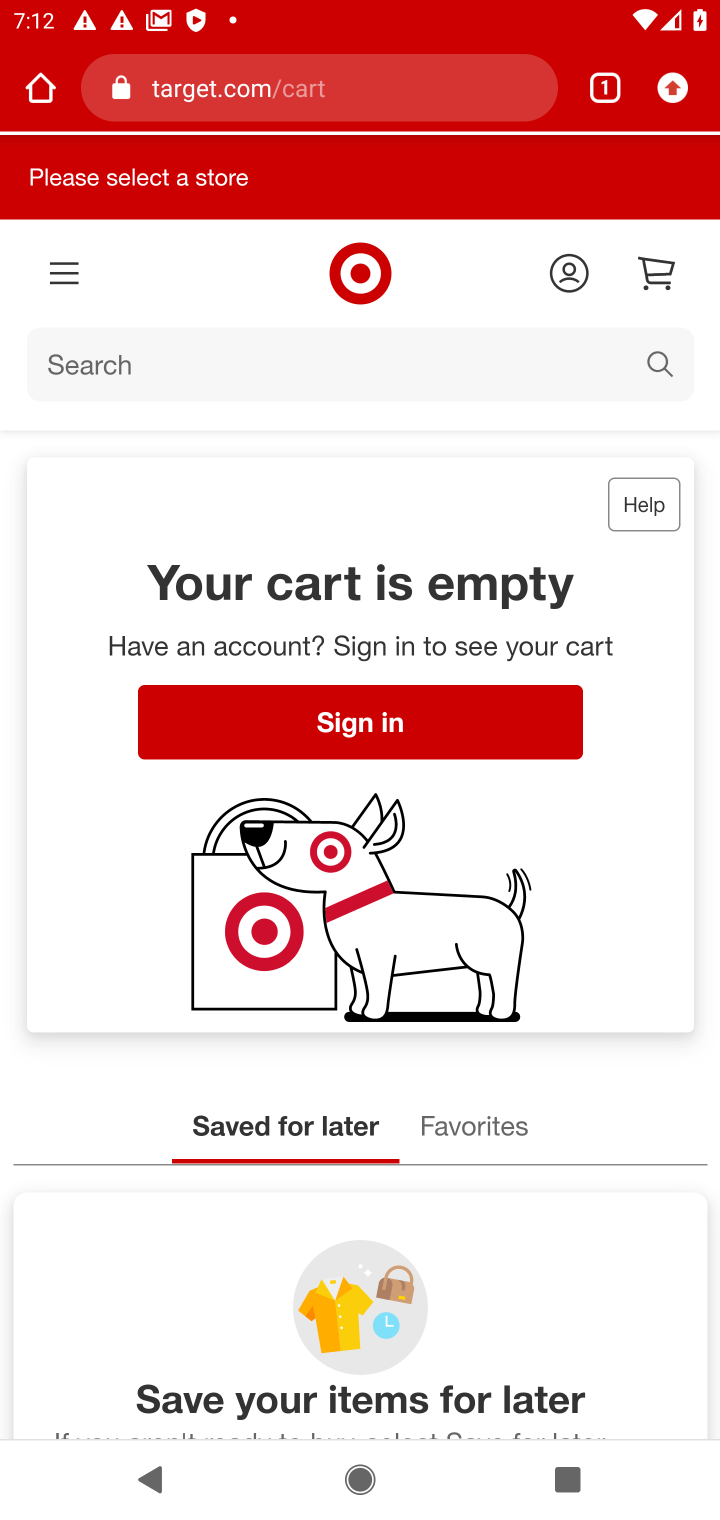
Step 28: task complete